Your task to perform on an android device: Do I have any events tomorrow? Image 0: 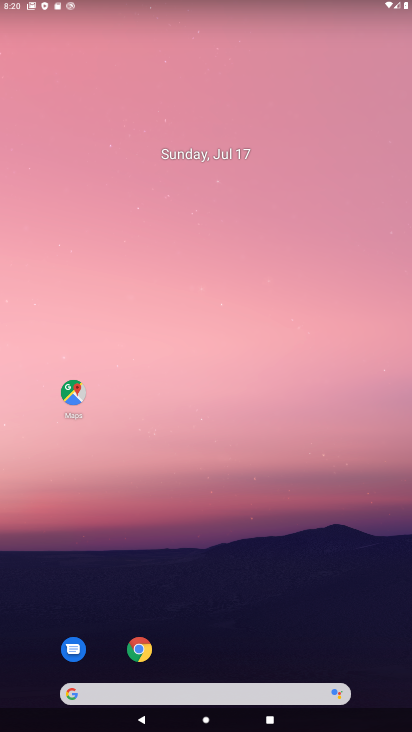
Step 0: drag from (243, 653) to (242, 201)
Your task to perform on an android device: Do I have any events tomorrow? Image 1: 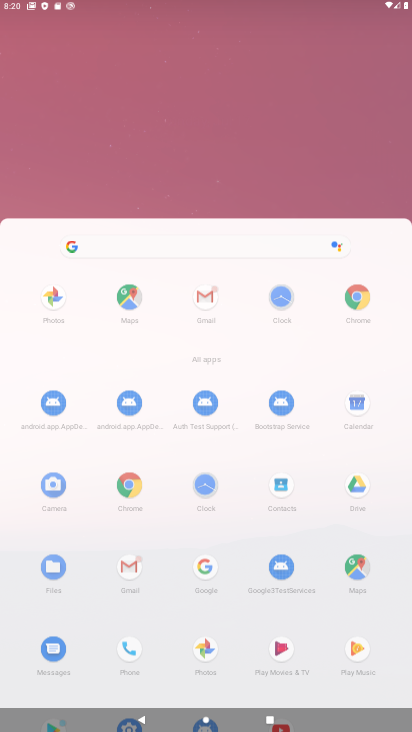
Step 1: drag from (242, 201) to (281, 24)
Your task to perform on an android device: Do I have any events tomorrow? Image 2: 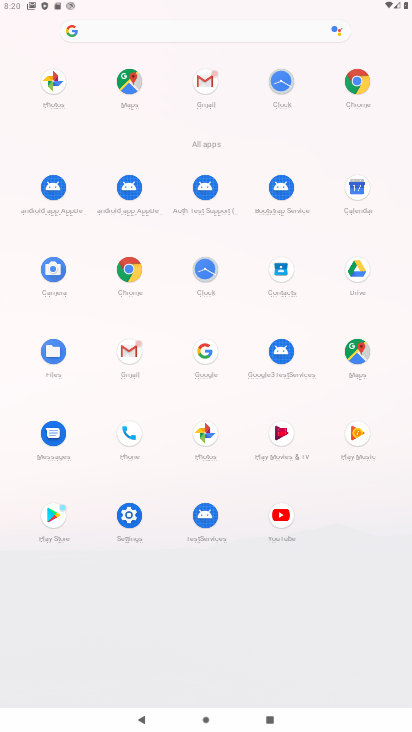
Step 2: click (358, 199)
Your task to perform on an android device: Do I have any events tomorrow? Image 3: 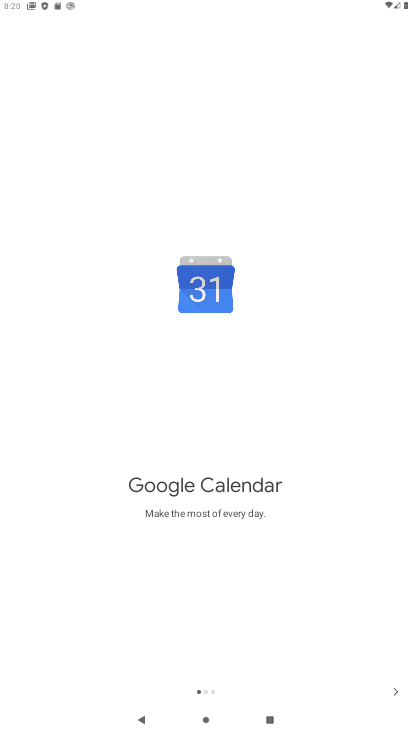
Step 3: click (398, 692)
Your task to perform on an android device: Do I have any events tomorrow? Image 4: 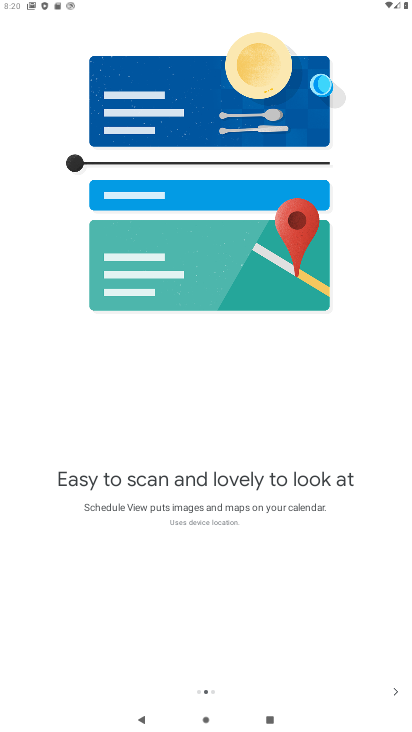
Step 4: click (398, 693)
Your task to perform on an android device: Do I have any events tomorrow? Image 5: 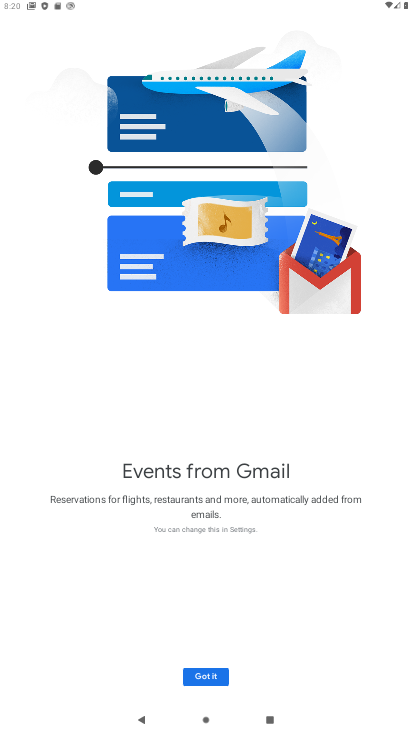
Step 5: click (205, 679)
Your task to perform on an android device: Do I have any events tomorrow? Image 6: 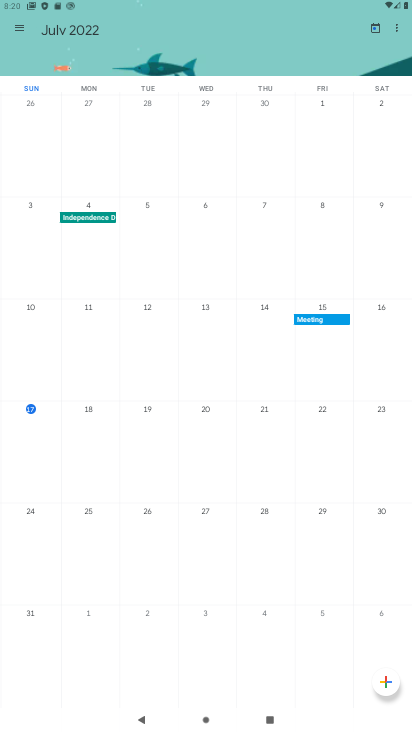
Step 6: click (21, 35)
Your task to perform on an android device: Do I have any events tomorrow? Image 7: 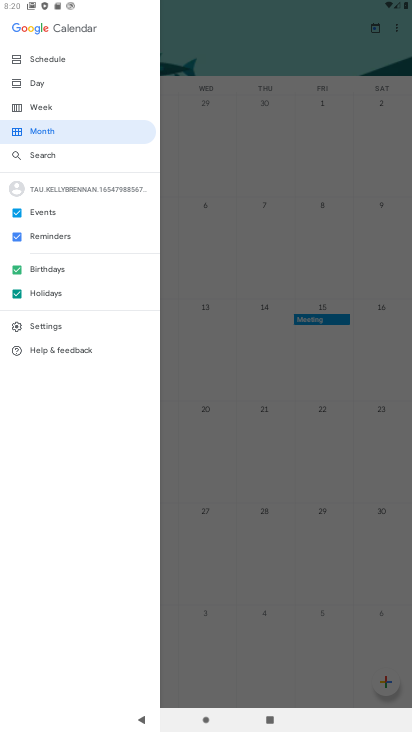
Step 7: click (15, 292)
Your task to perform on an android device: Do I have any events tomorrow? Image 8: 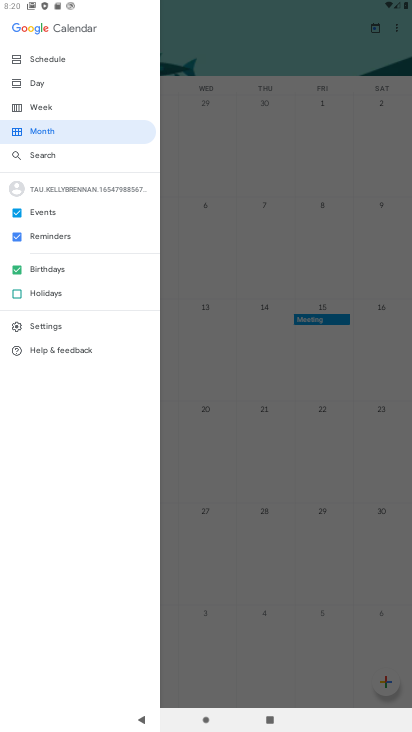
Step 8: click (13, 264)
Your task to perform on an android device: Do I have any events tomorrow? Image 9: 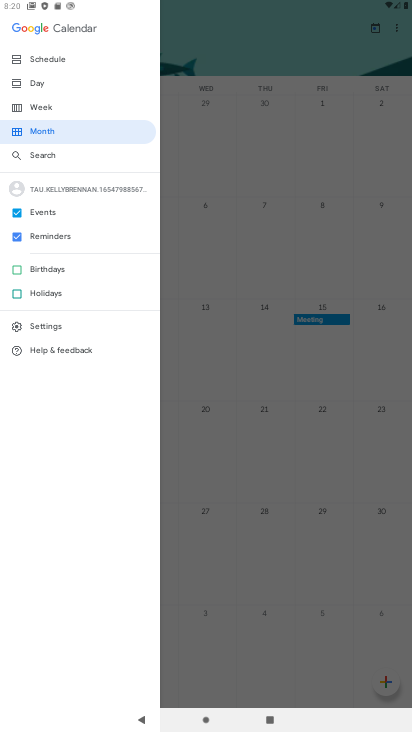
Step 9: click (17, 234)
Your task to perform on an android device: Do I have any events tomorrow? Image 10: 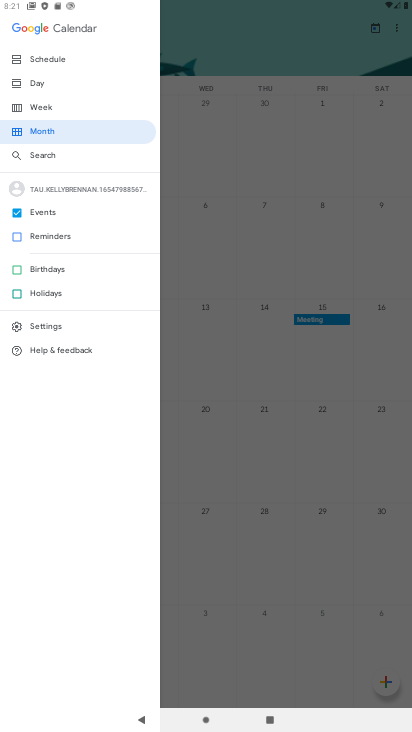
Step 10: click (65, 83)
Your task to perform on an android device: Do I have any events tomorrow? Image 11: 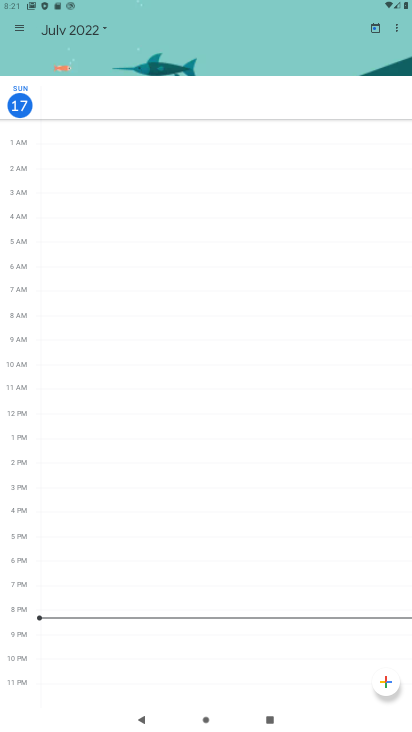
Step 11: task complete